Your task to perform on an android device: Open my contact list Image 0: 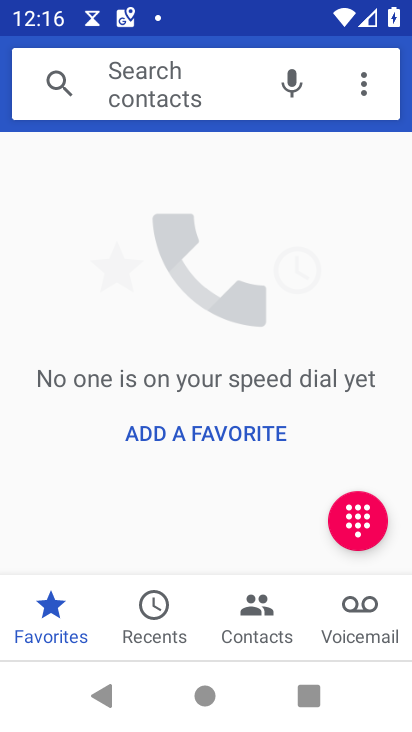
Step 0: press home button
Your task to perform on an android device: Open my contact list Image 1: 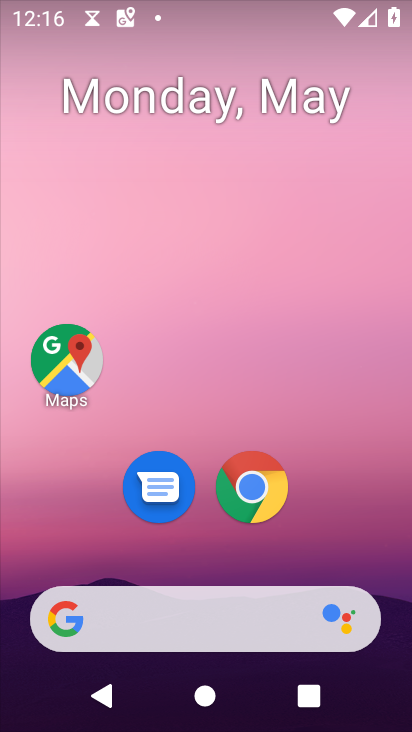
Step 1: drag from (222, 544) to (270, 12)
Your task to perform on an android device: Open my contact list Image 2: 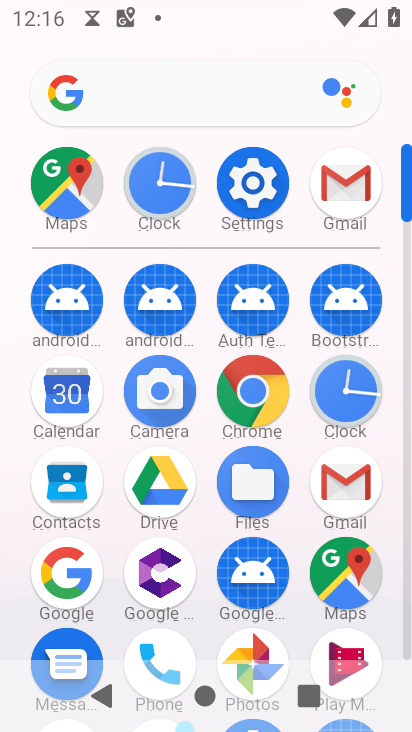
Step 2: click (56, 485)
Your task to perform on an android device: Open my contact list Image 3: 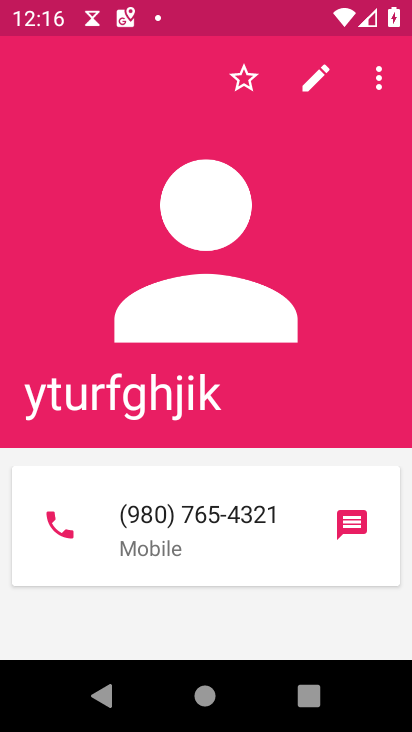
Step 3: task complete